Your task to perform on an android device: Open maps Image 0: 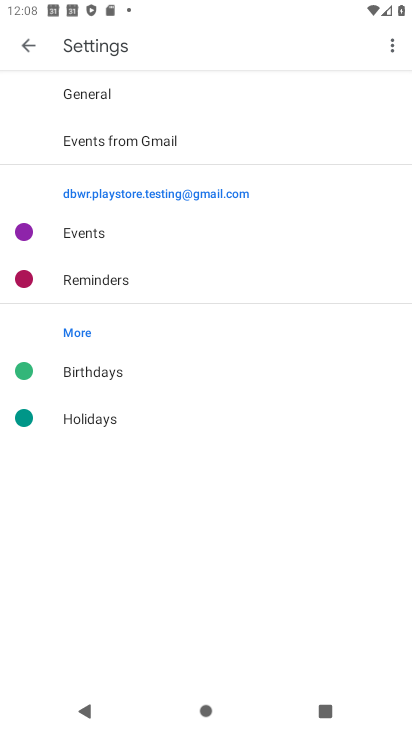
Step 0: press back button
Your task to perform on an android device: Open maps Image 1: 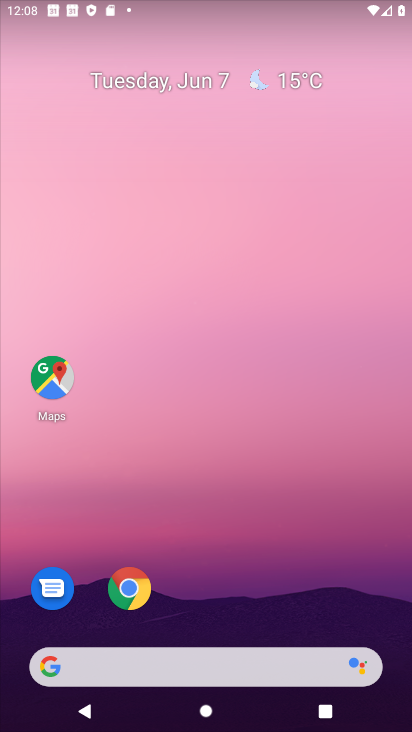
Step 1: click (49, 384)
Your task to perform on an android device: Open maps Image 2: 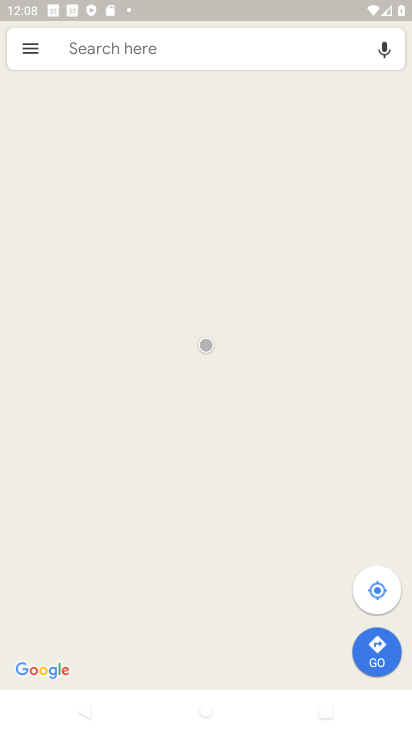
Step 2: task complete